Your task to perform on an android device: What's on my calendar tomorrow? Image 0: 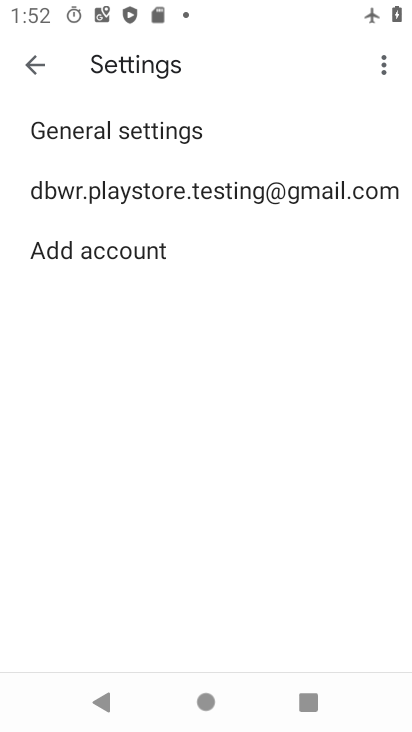
Step 0: press home button
Your task to perform on an android device: What's on my calendar tomorrow? Image 1: 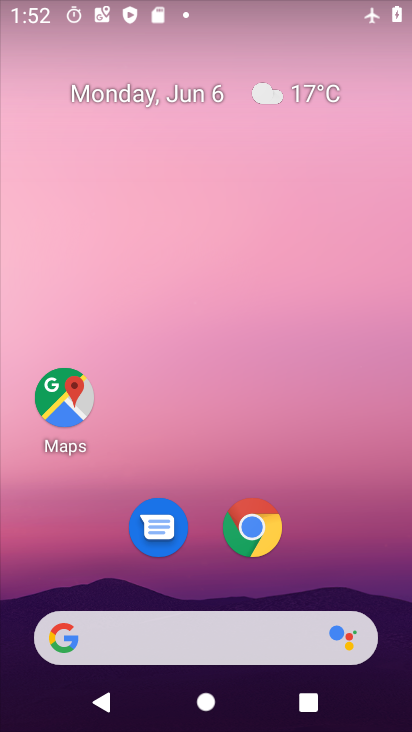
Step 1: drag from (250, 729) to (243, 141)
Your task to perform on an android device: What's on my calendar tomorrow? Image 2: 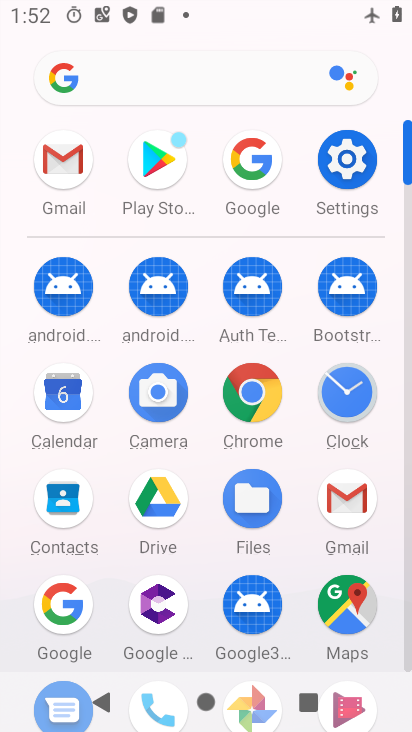
Step 2: click (68, 385)
Your task to perform on an android device: What's on my calendar tomorrow? Image 3: 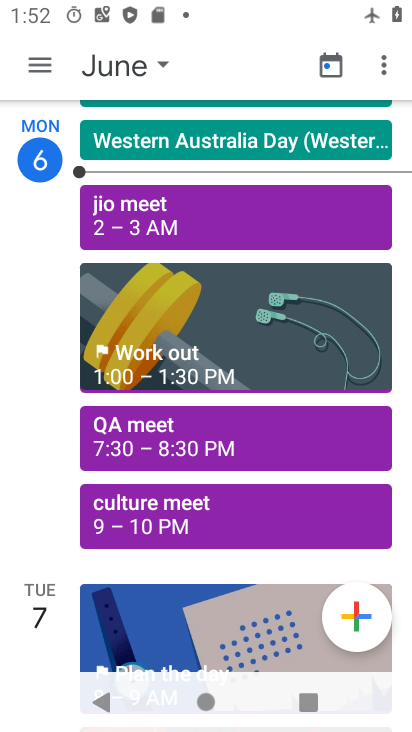
Step 3: click (163, 59)
Your task to perform on an android device: What's on my calendar tomorrow? Image 4: 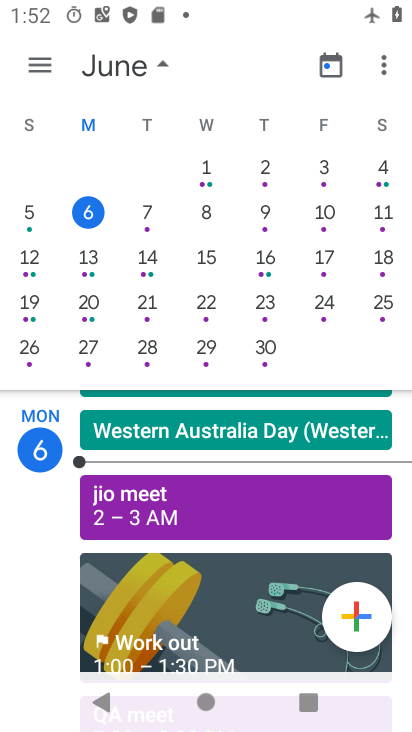
Step 4: click (145, 205)
Your task to perform on an android device: What's on my calendar tomorrow? Image 5: 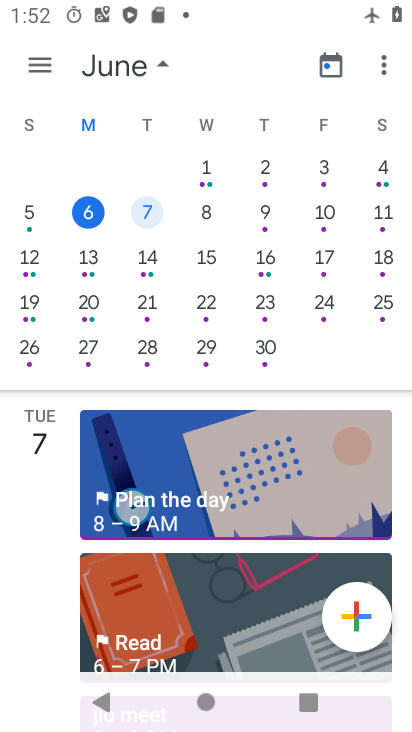
Step 5: click (145, 205)
Your task to perform on an android device: What's on my calendar tomorrow? Image 6: 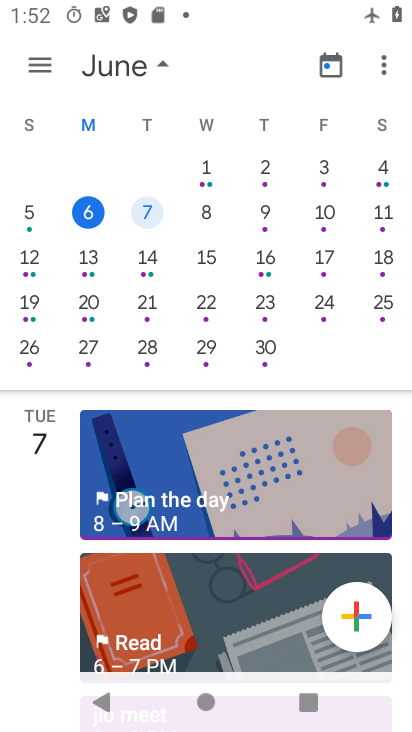
Step 6: click (161, 61)
Your task to perform on an android device: What's on my calendar tomorrow? Image 7: 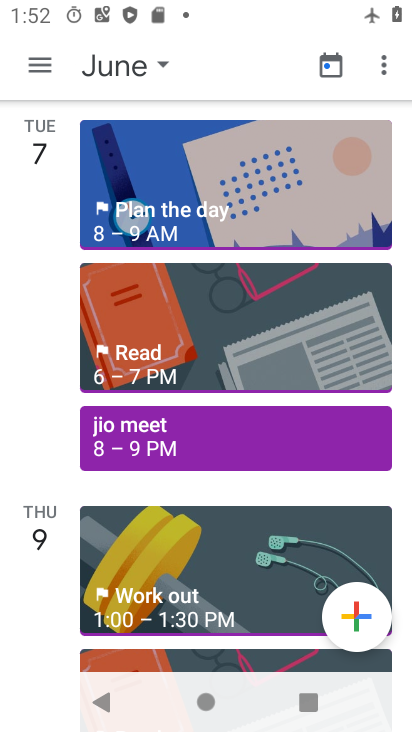
Step 7: task complete